Your task to perform on an android device: What's the weather today? Image 0: 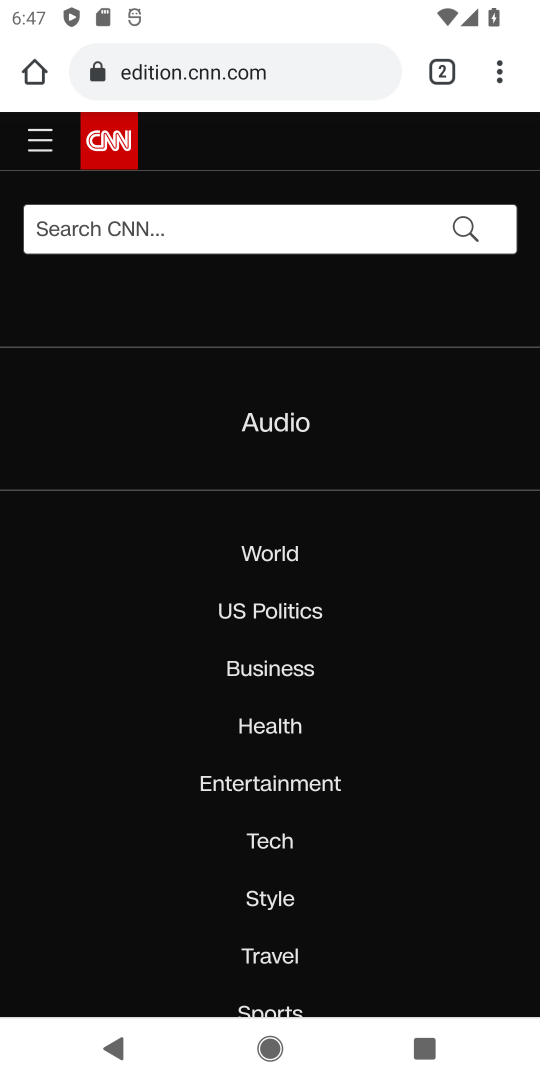
Step 0: press home button
Your task to perform on an android device: What's the weather today? Image 1: 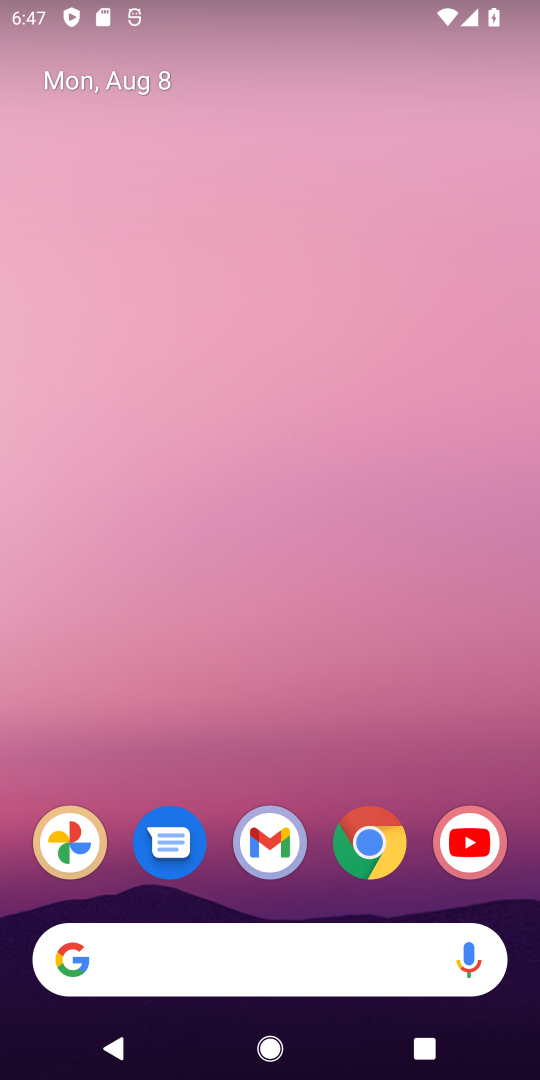
Step 1: click (274, 945)
Your task to perform on an android device: What's the weather today? Image 2: 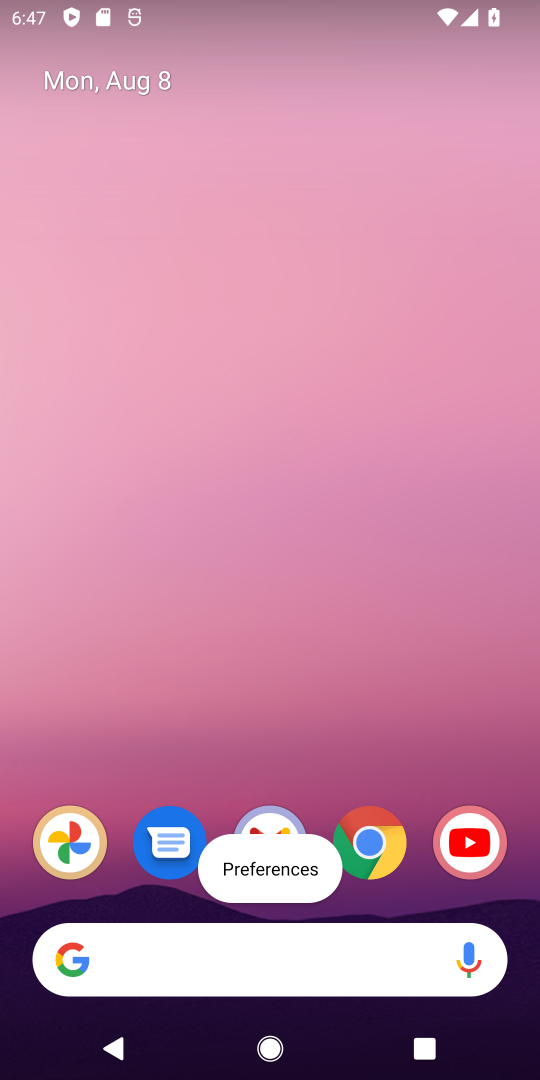
Step 2: click (316, 956)
Your task to perform on an android device: What's the weather today? Image 3: 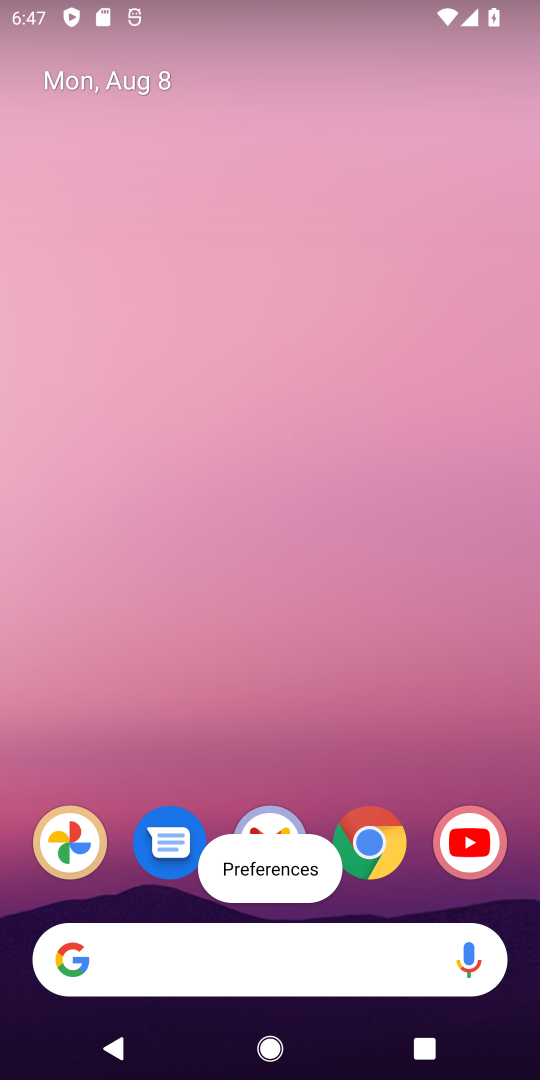
Step 3: click (266, 994)
Your task to perform on an android device: What's the weather today? Image 4: 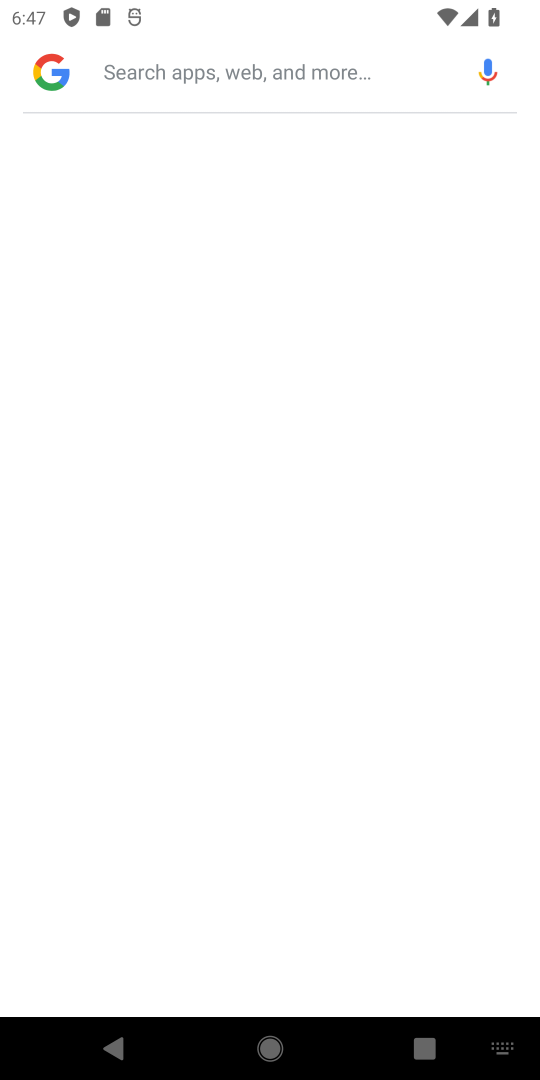
Step 4: click (266, 994)
Your task to perform on an android device: What's the weather today? Image 5: 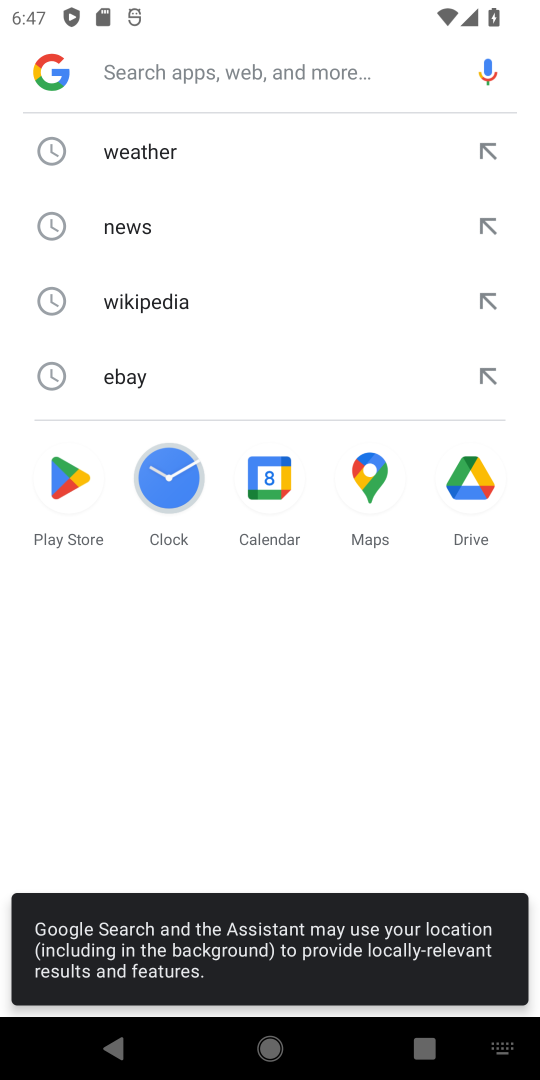
Step 5: click (131, 151)
Your task to perform on an android device: What's the weather today? Image 6: 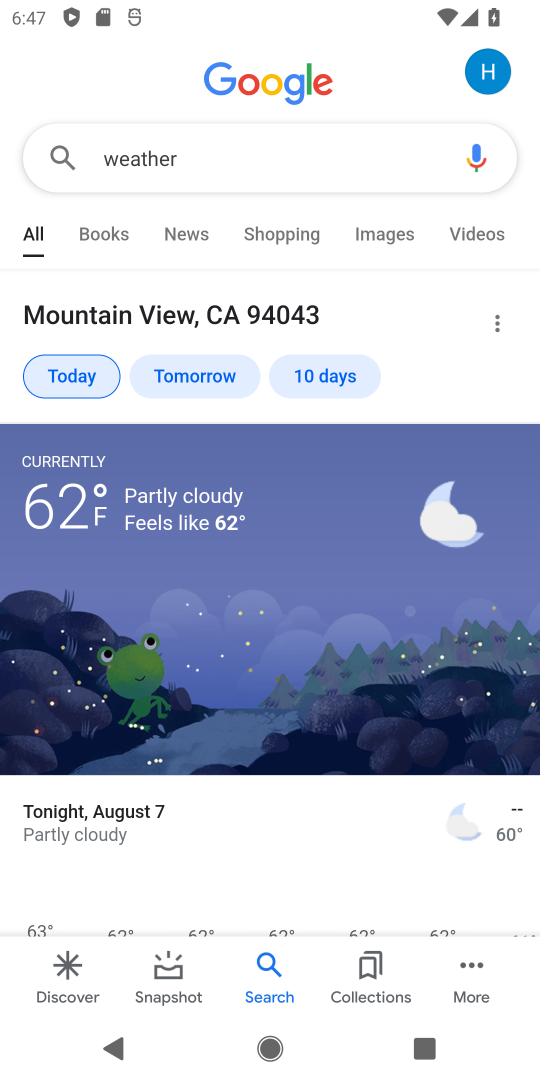
Step 6: click (92, 379)
Your task to perform on an android device: What's the weather today? Image 7: 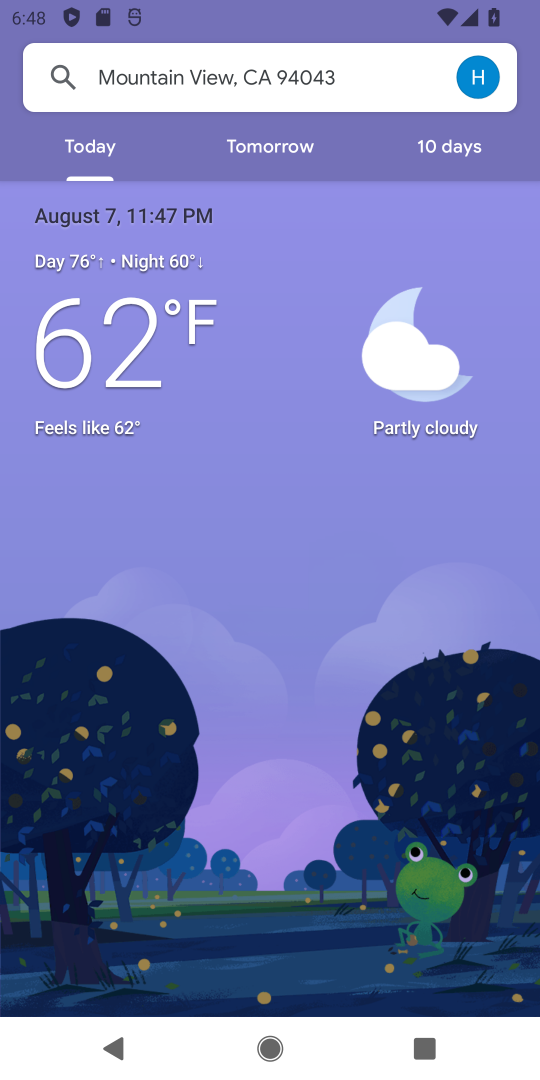
Step 7: task complete